Your task to perform on an android device: Open Chrome and go to settings Image 0: 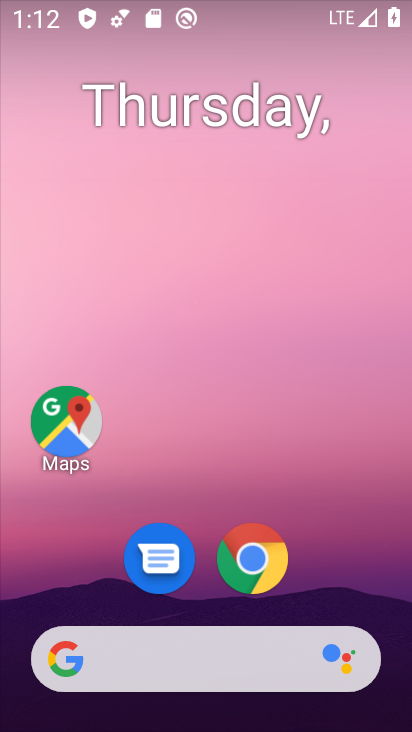
Step 0: drag from (336, 563) to (298, 697)
Your task to perform on an android device: Open Chrome and go to settings Image 1: 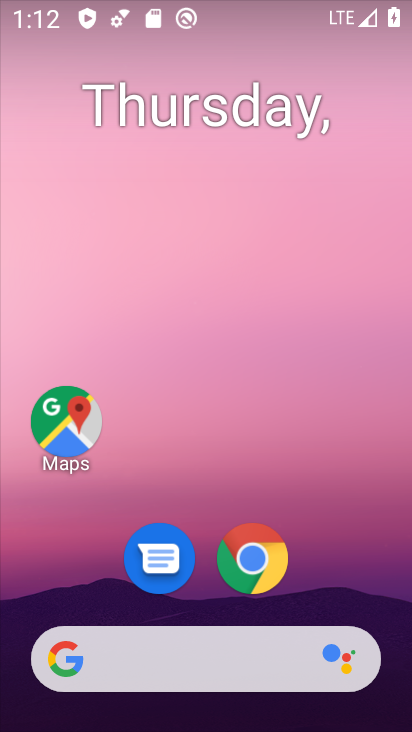
Step 1: click (253, 546)
Your task to perform on an android device: Open Chrome and go to settings Image 2: 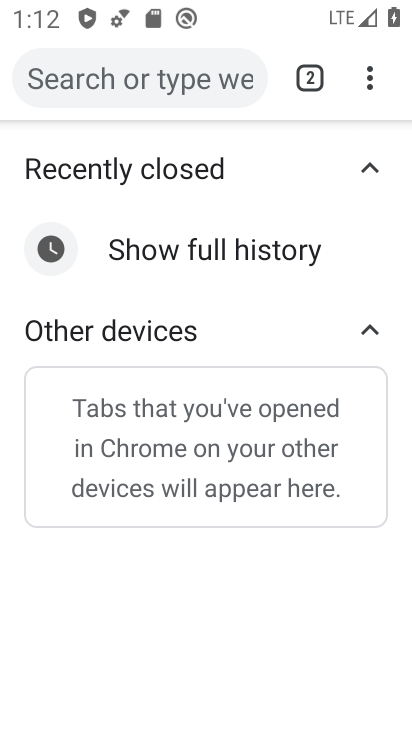
Step 2: click (366, 81)
Your task to perform on an android device: Open Chrome and go to settings Image 3: 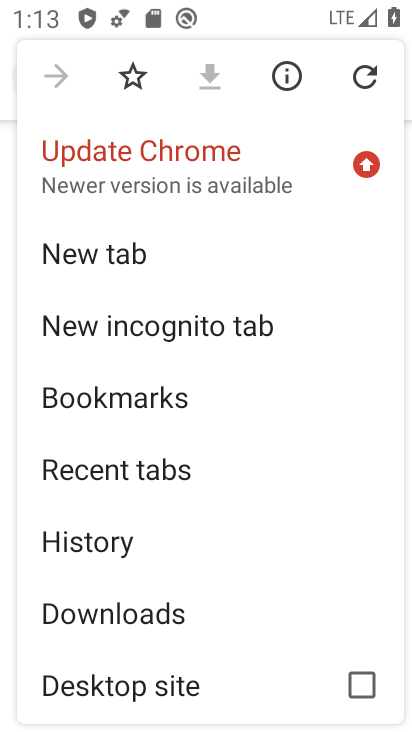
Step 3: drag from (169, 670) to (201, 310)
Your task to perform on an android device: Open Chrome and go to settings Image 4: 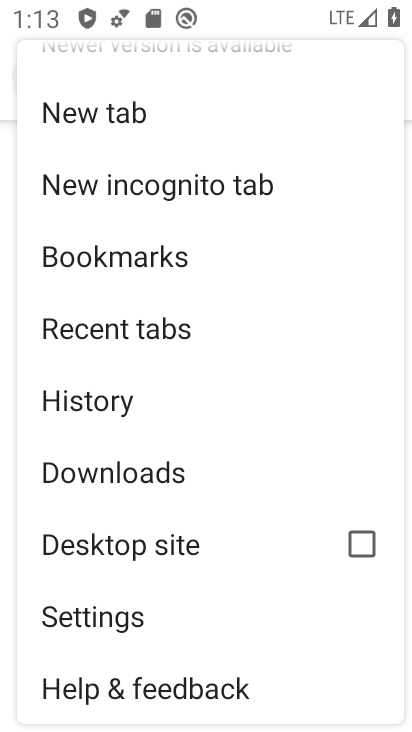
Step 4: click (131, 619)
Your task to perform on an android device: Open Chrome and go to settings Image 5: 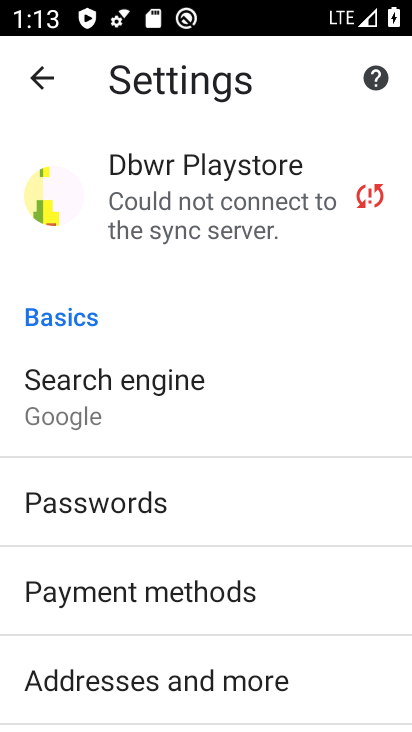
Step 5: task complete